Your task to perform on an android device: See recent photos Image 0: 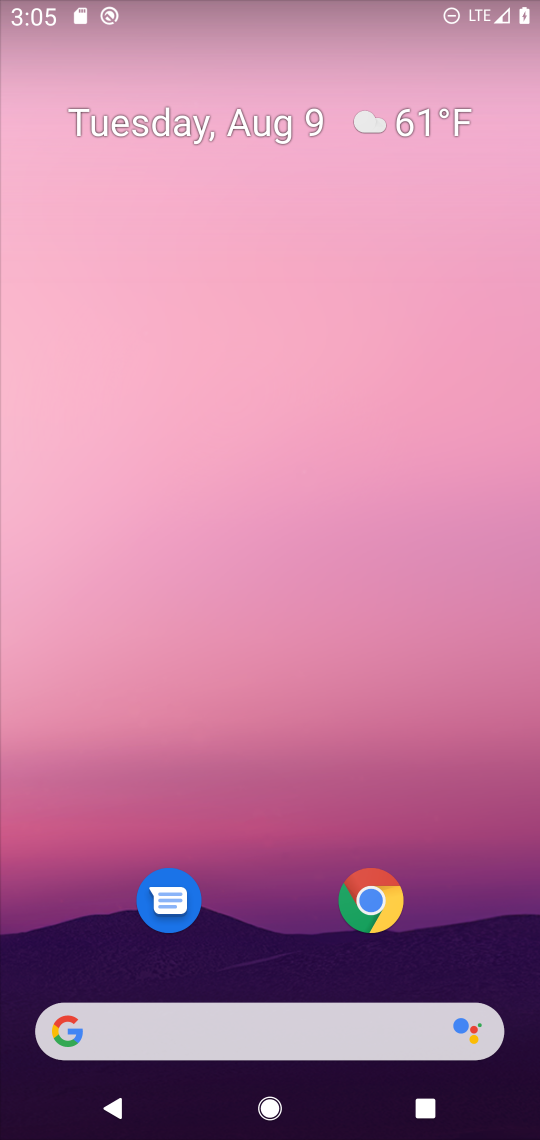
Step 0: press home button
Your task to perform on an android device: See recent photos Image 1: 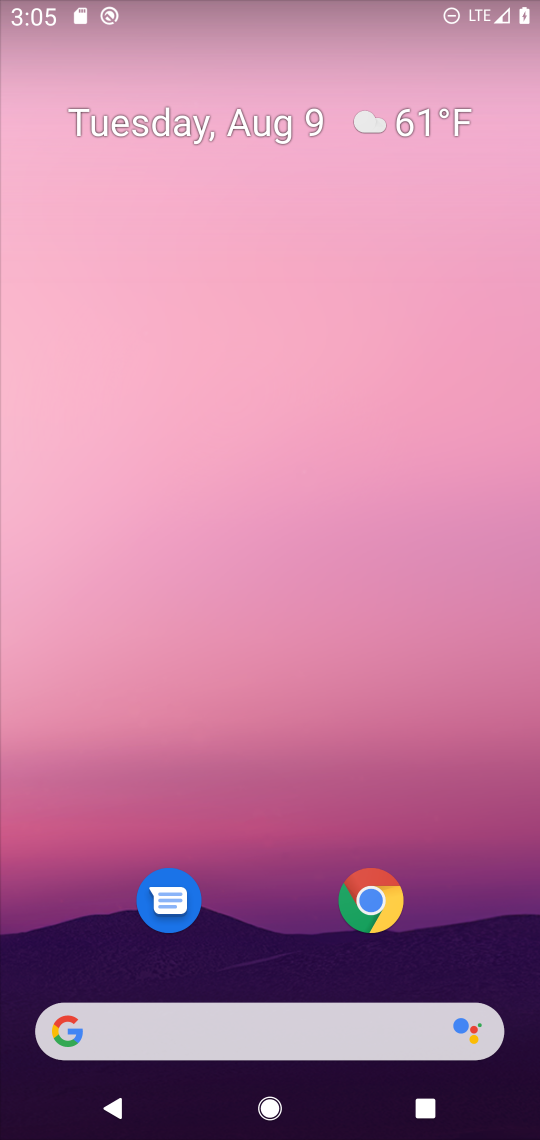
Step 1: drag from (433, 913) to (426, 362)
Your task to perform on an android device: See recent photos Image 2: 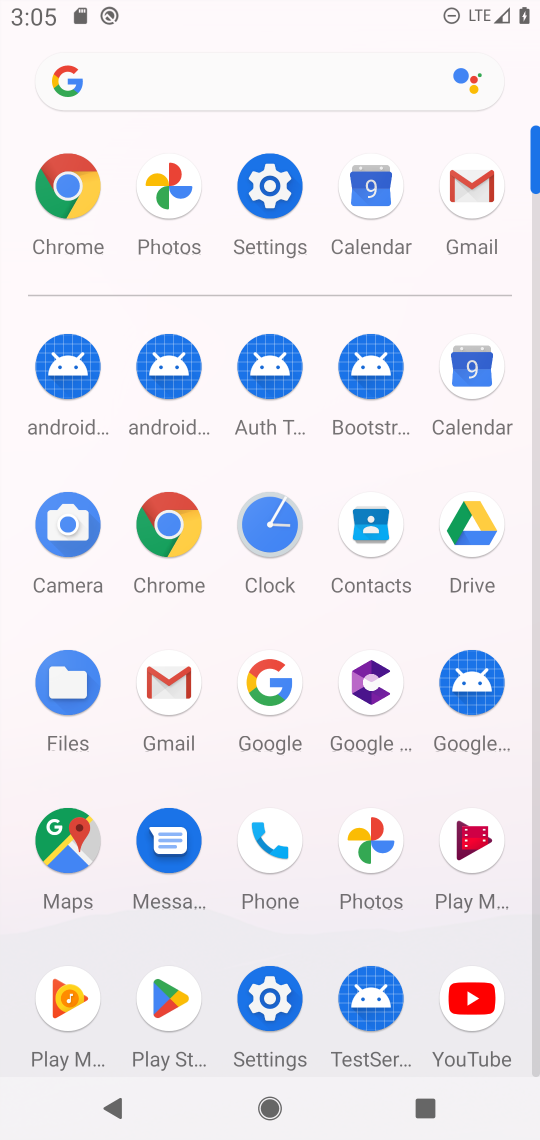
Step 2: click (384, 836)
Your task to perform on an android device: See recent photos Image 3: 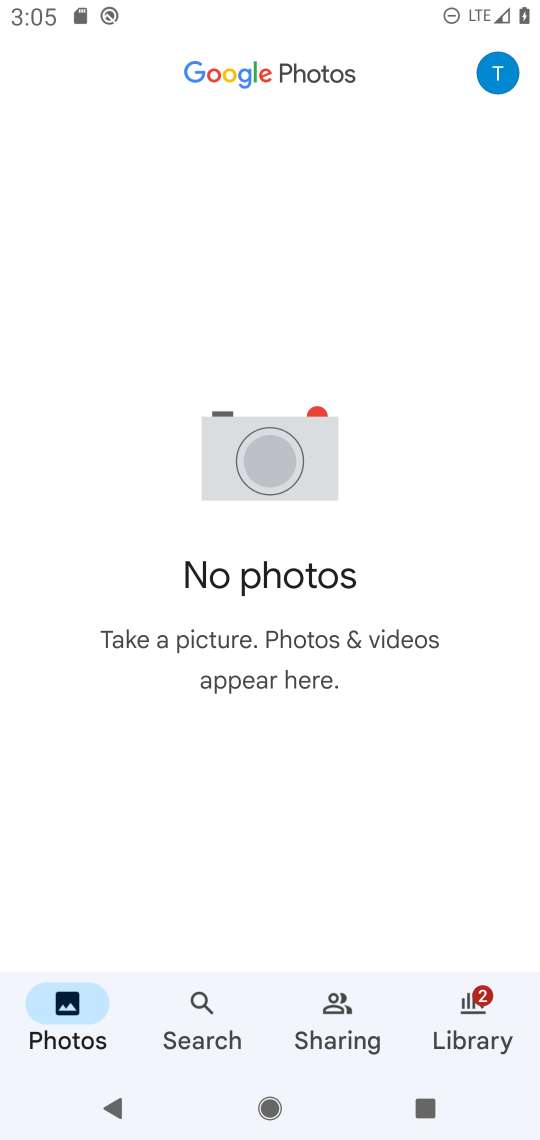
Step 3: task complete